Your task to perform on an android device: set default search engine in the chrome app Image 0: 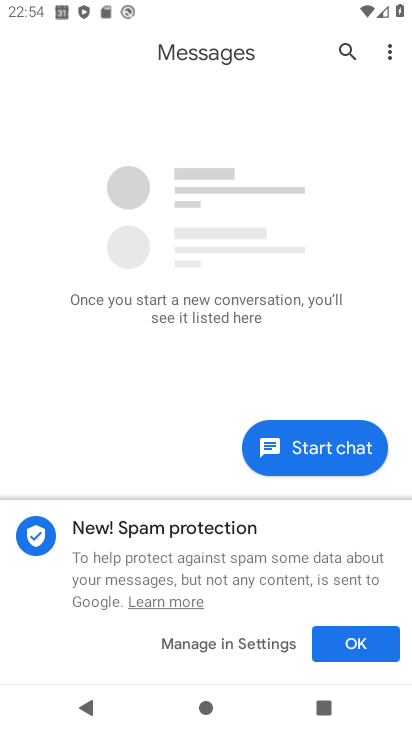
Step 0: press back button
Your task to perform on an android device: set default search engine in the chrome app Image 1: 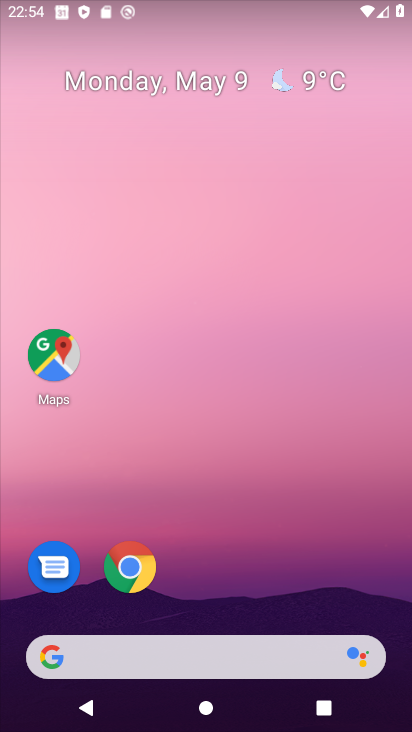
Step 1: click (128, 569)
Your task to perform on an android device: set default search engine in the chrome app Image 2: 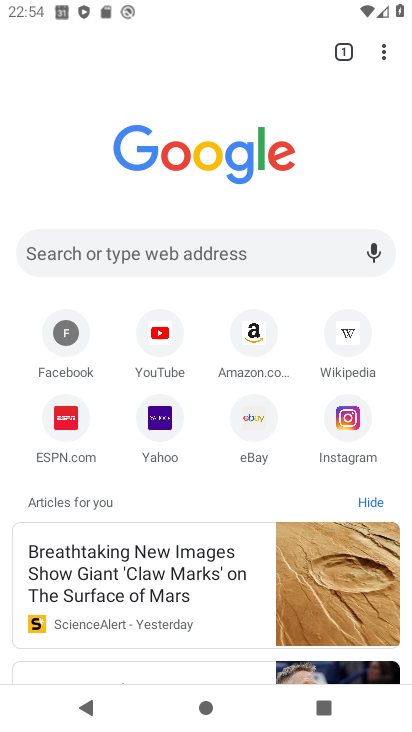
Step 2: click (382, 51)
Your task to perform on an android device: set default search engine in the chrome app Image 3: 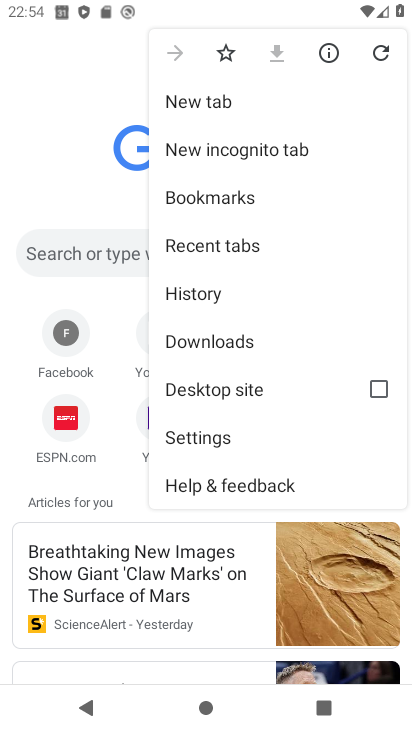
Step 3: click (201, 442)
Your task to perform on an android device: set default search engine in the chrome app Image 4: 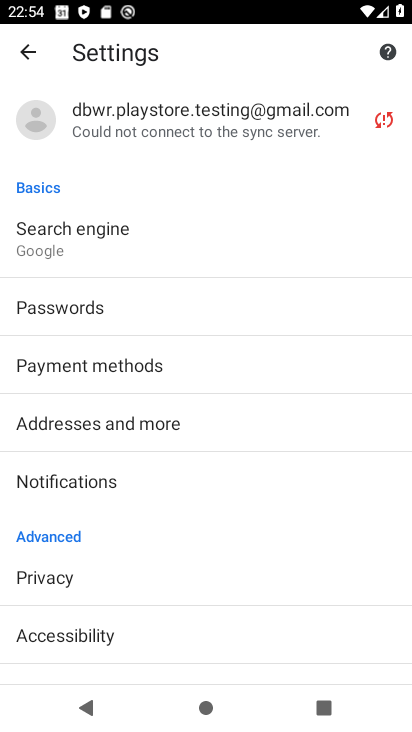
Step 4: click (102, 233)
Your task to perform on an android device: set default search engine in the chrome app Image 5: 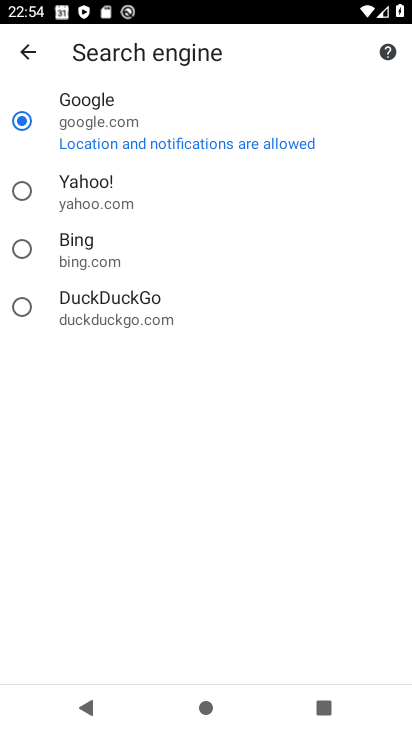
Step 5: click (22, 180)
Your task to perform on an android device: set default search engine in the chrome app Image 6: 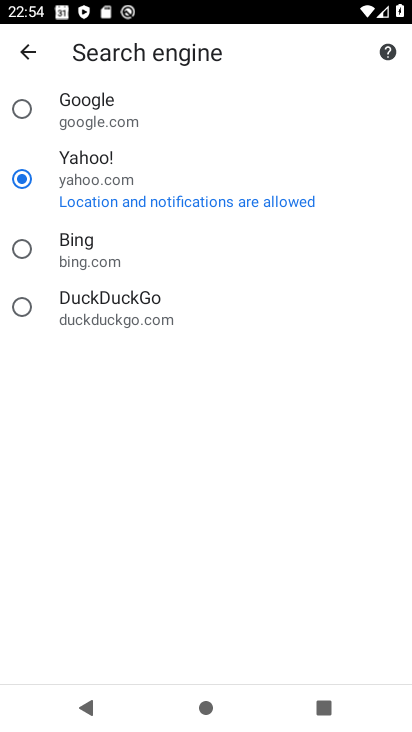
Step 6: task complete